Your task to perform on an android device: What's the weather today? Image 0: 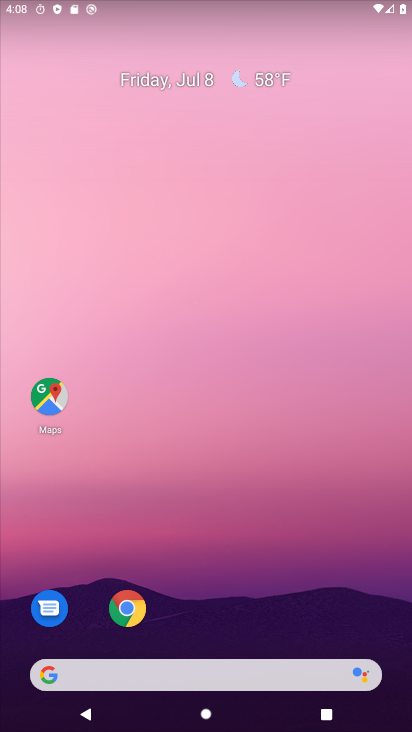
Step 0: click (191, 671)
Your task to perform on an android device: What's the weather today? Image 1: 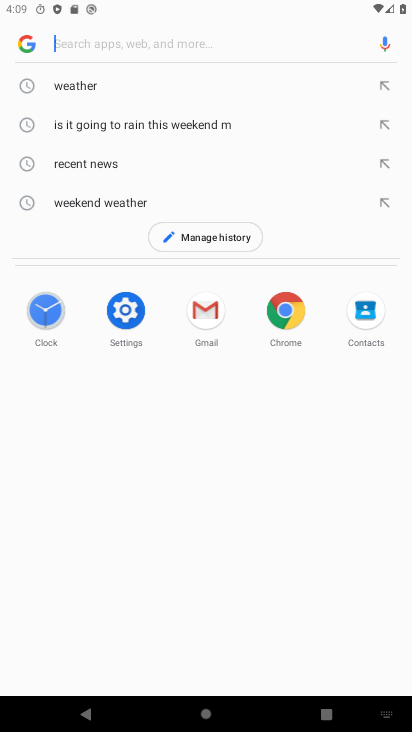
Step 1: type "what's the weather today"
Your task to perform on an android device: What's the weather today? Image 2: 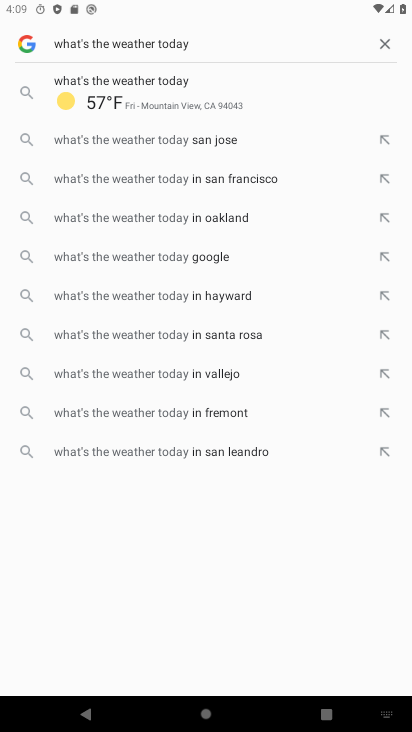
Step 2: click (127, 97)
Your task to perform on an android device: What's the weather today? Image 3: 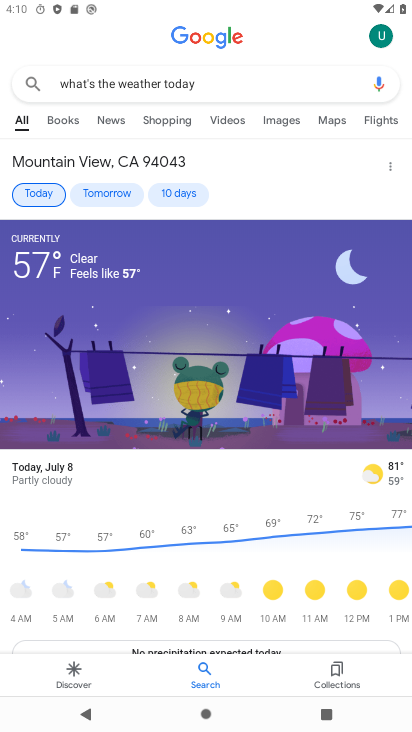
Step 3: task complete